Your task to perform on an android device: Open privacy settings Image 0: 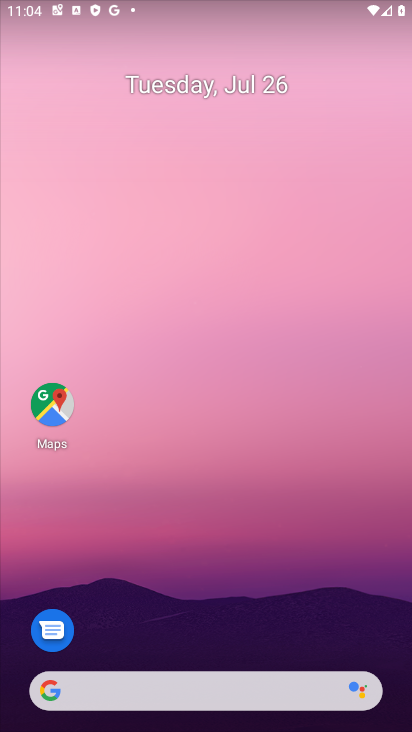
Step 0: drag from (265, 644) to (409, 23)
Your task to perform on an android device: Open privacy settings Image 1: 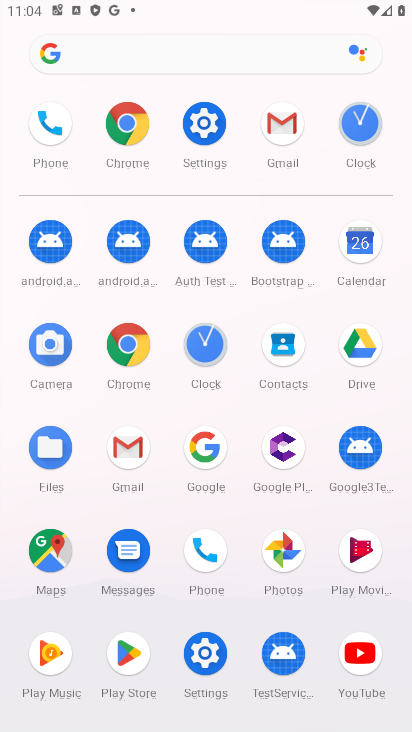
Step 1: click (198, 126)
Your task to perform on an android device: Open privacy settings Image 2: 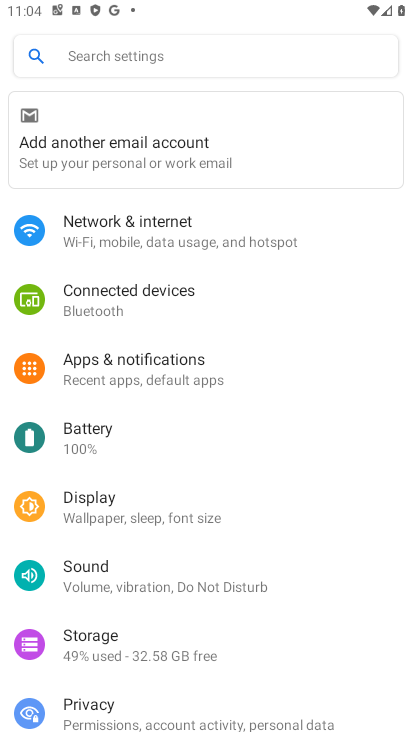
Step 2: drag from (87, 606) to (175, 188)
Your task to perform on an android device: Open privacy settings Image 3: 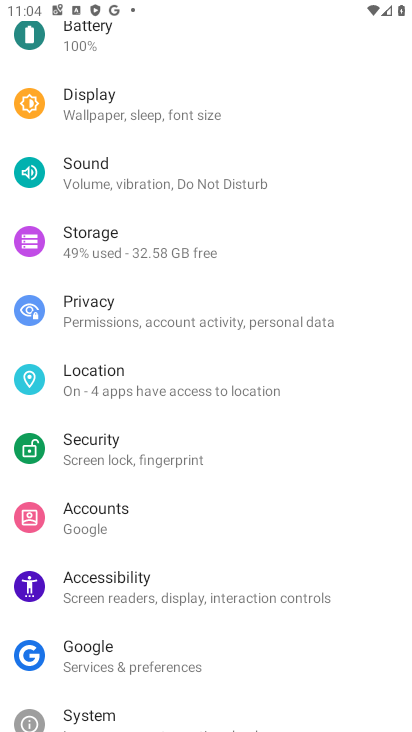
Step 3: click (180, 314)
Your task to perform on an android device: Open privacy settings Image 4: 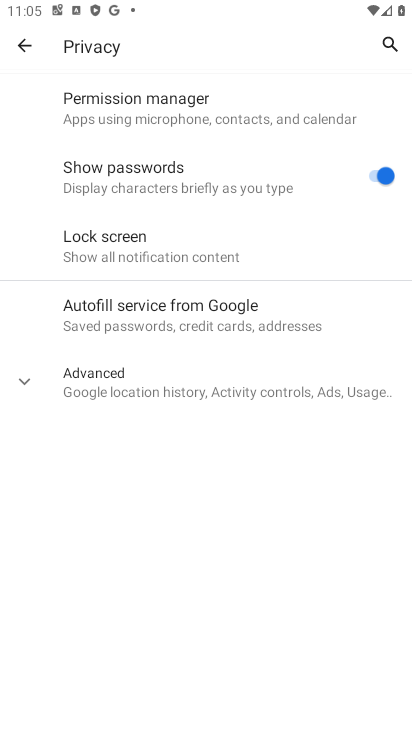
Step 4: task complete